Your task to perform on an android device: delete the emails in spam in the gmail app Image 0: 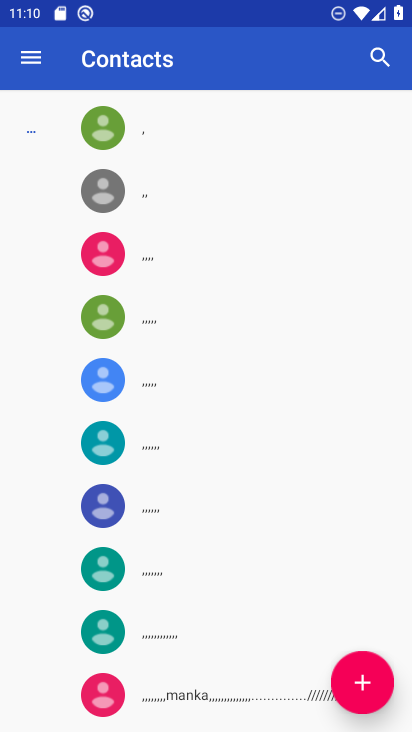
Step 0: press back button
Your task to perform on an android device: delete the emails in spam in the gmail app Image 1: 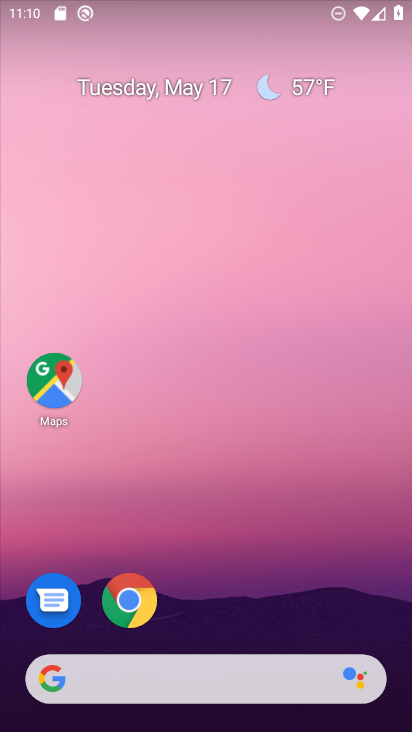
Step 1: drag from (225, 551) to (147, 73)
Your task to perform on an android device: delete the emails in spam in the gmail app Image 2: 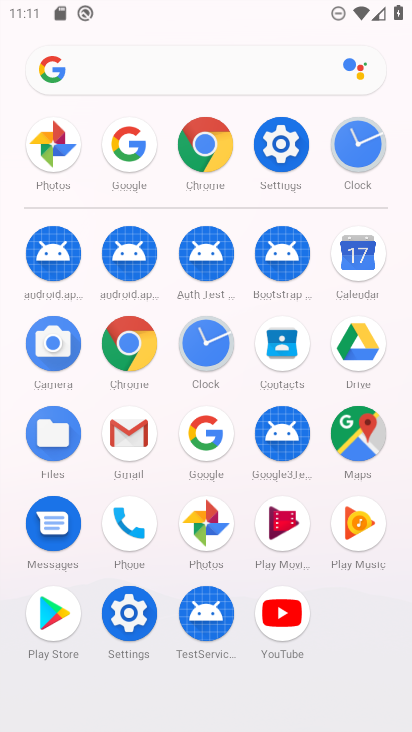
Step 2: click (130, 436)
Your task to perform on an android device: delete the emails in spam in the gmail app Image 3: 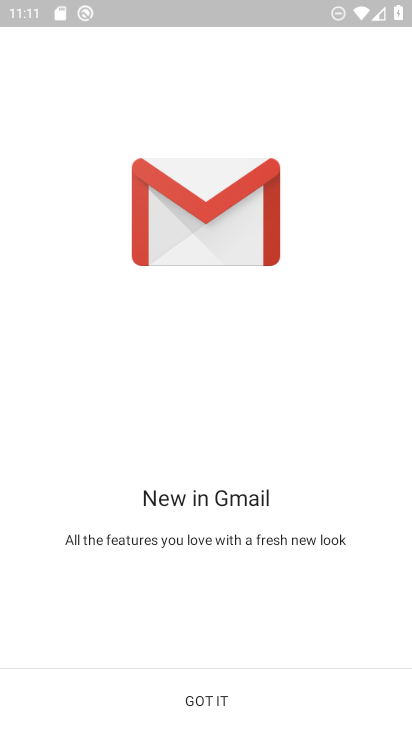
Step 3: click (134, 431)
Your task to perform on an android device: delete the emails in spam in the gmail app Image 4: 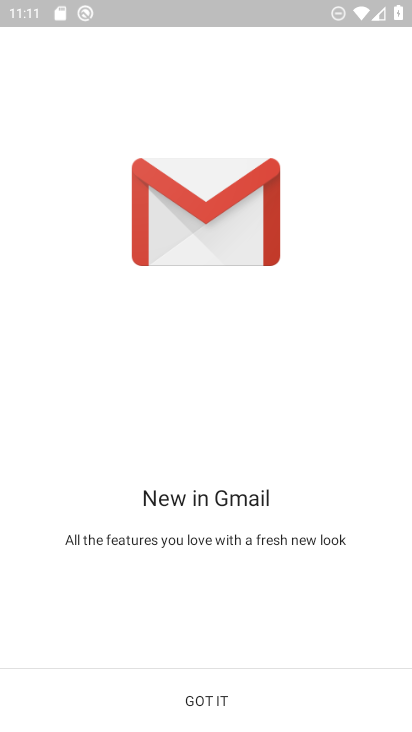
Step 4: click (216, 690)
Your task to perform on an android device: delete the emails in spam in the gmail app Image 5: 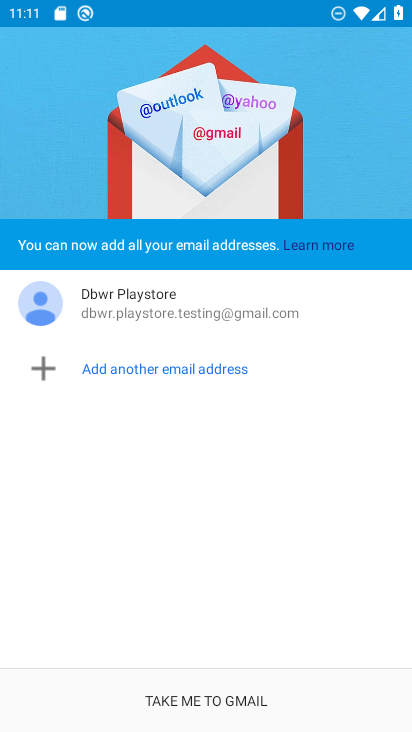
Step 5: click (216, 690)
Your task to perform on an android device: delete the emails in spam in the gmail app Image 6: 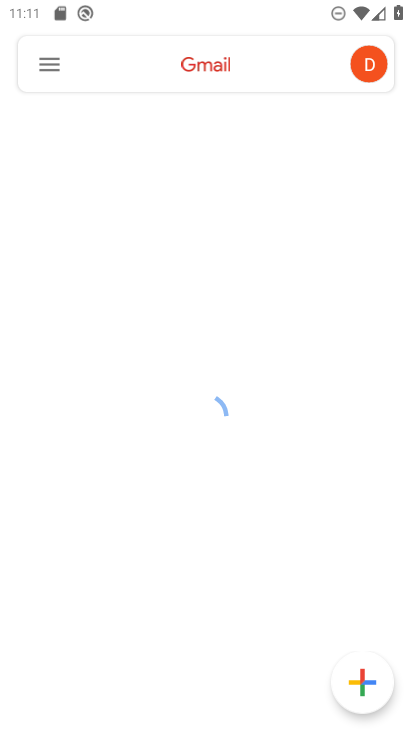
Step 6: click (204, 695)
Your task to perform on an android device: delete the emails in spam in the gmail app Image 7: 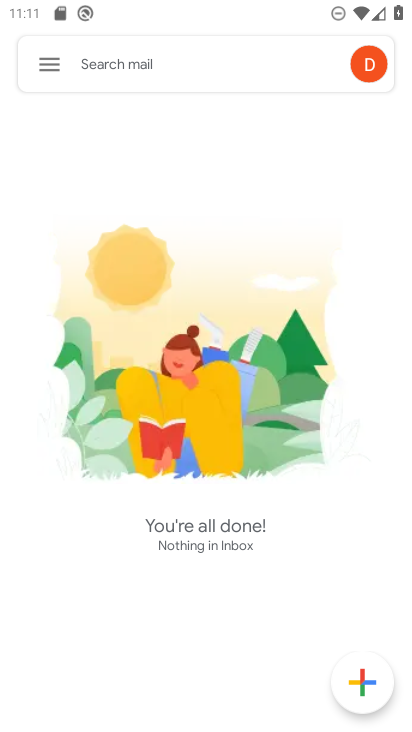
Step 7: click (40, 52)
Your task to perform on an android device: delete the emails in spam in the gmail app Image 8: 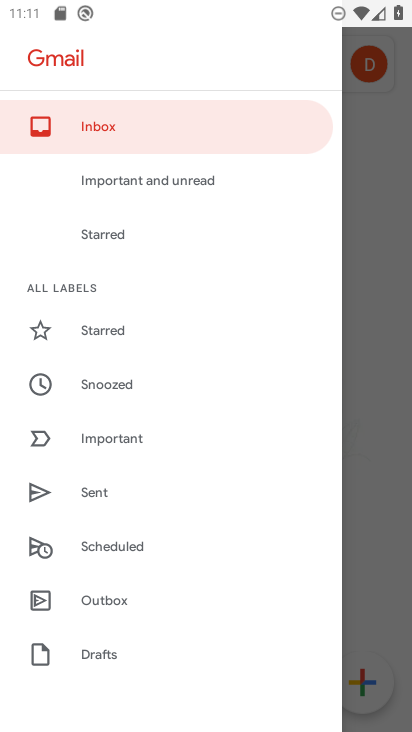
Step 8: drag from (77, 493) to (35, 147)
Your task to perform on an android device: delete the emails in spam in the gmail app Image 9: 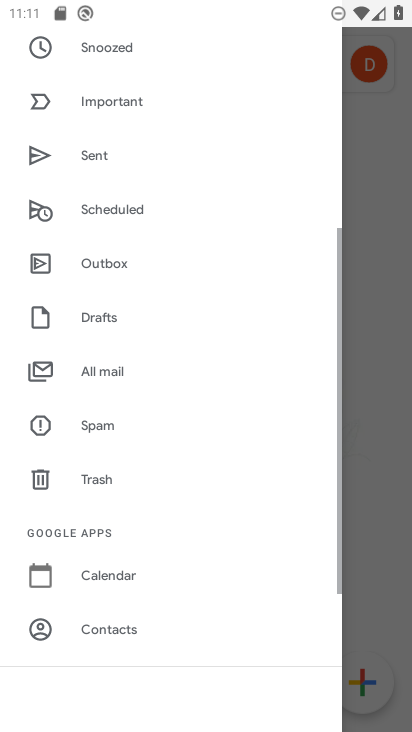
Step 9: drag from (114, 485) to (83, 189)
Your task to perform on an android device: delete the emails in spam in the gmail app Image 10: 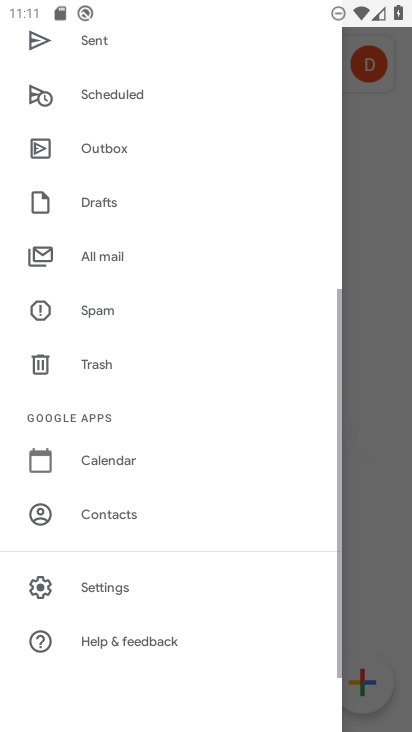
Step 10: drag from (131, 527) to (123, 186)
Your task to perform on an android device: delete the emails in spam in the gmail app Image 11: 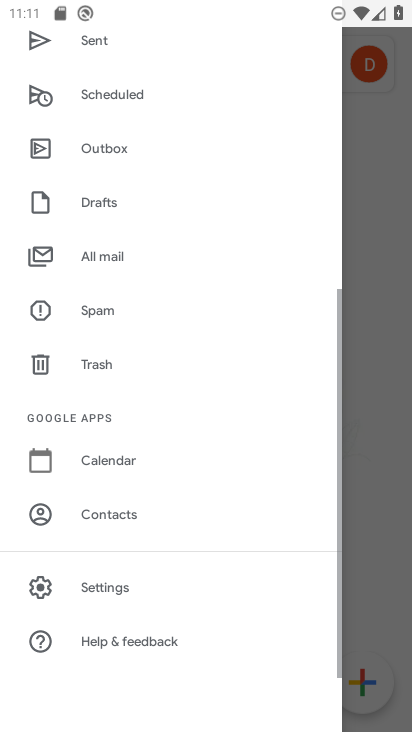
Step 11: click (89, 248)
Your task to perform on an android device: delete the emails in spam in the gmail app Image 12: 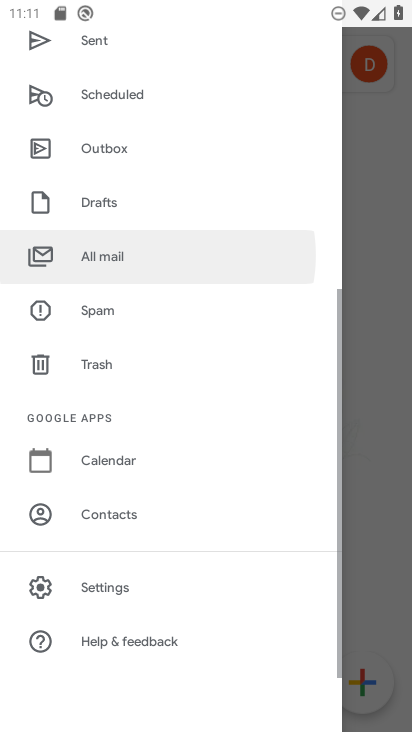
Step 12: click (94, 247)
Your task to perform on an android device: delete the emails in spam in the gmail app Image 13: 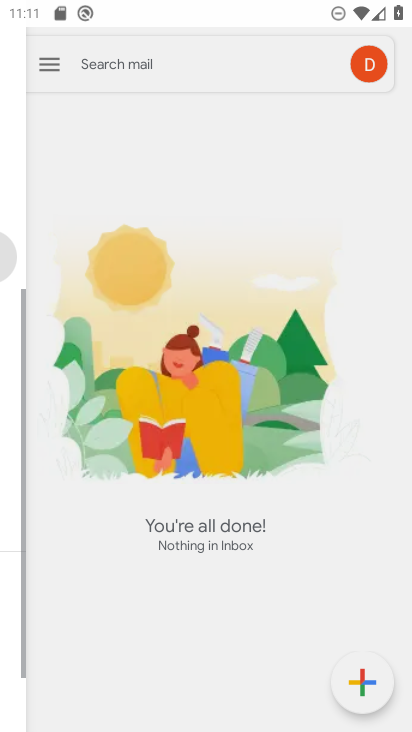
Step 13: click (95, 248)
Your task to perform on an android device: delete the emails in spam in the gmail app Image 14: 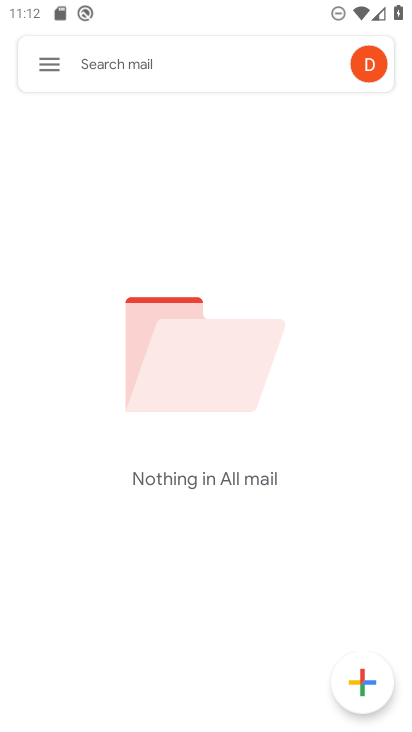
Step 14: task complete